Your task to perform on an android device: open app "Google Chat" Image 0: 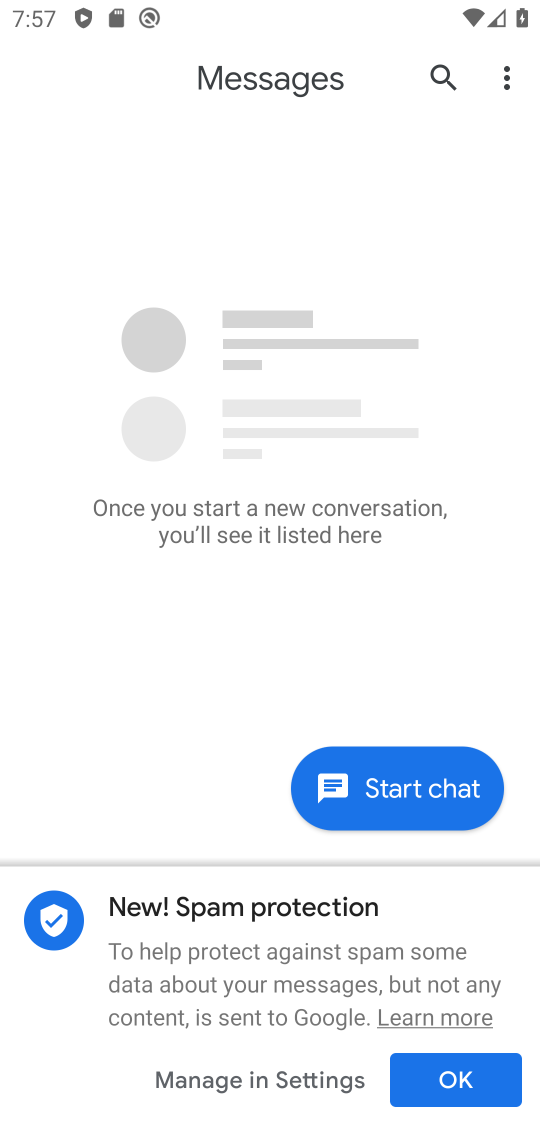
Step 0: press home button
Your task to perform on an android device: open app "Google Chat" Image 1: 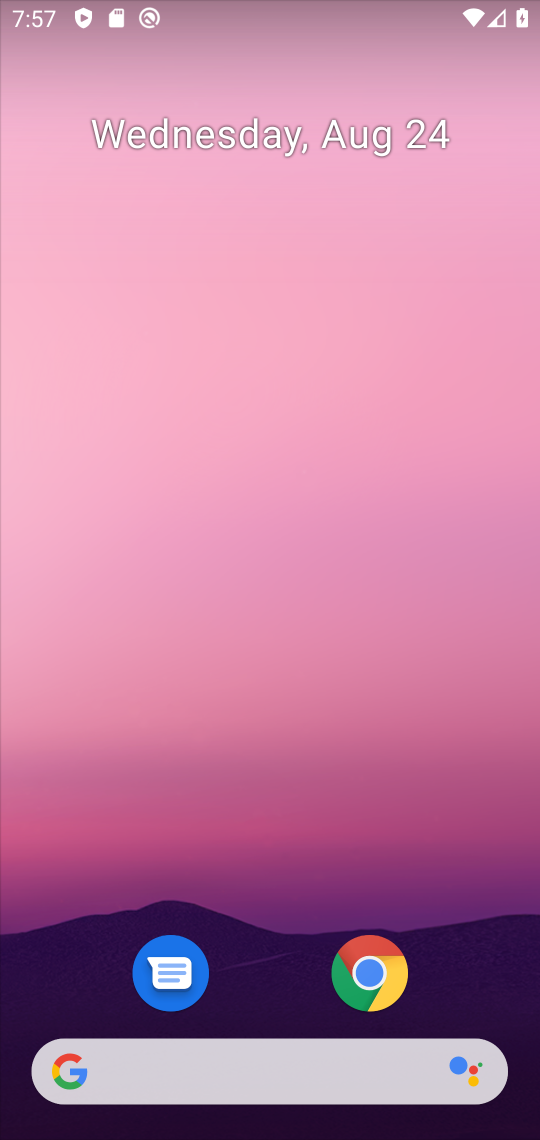
Step 1: drag from (249, 494) to (303, 291)
Your task to perform on an android device: open app "Google Chat" Image 2: 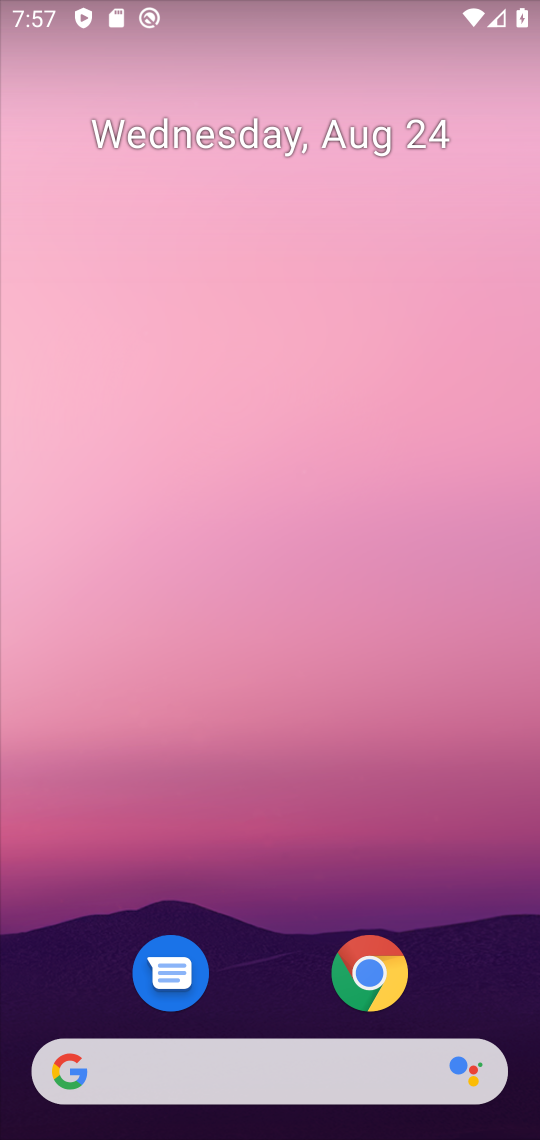
Step 2: drag from (242, 962) to (340, 247)
Your task to perform on an android device: open app "Google Chat" Image 3: 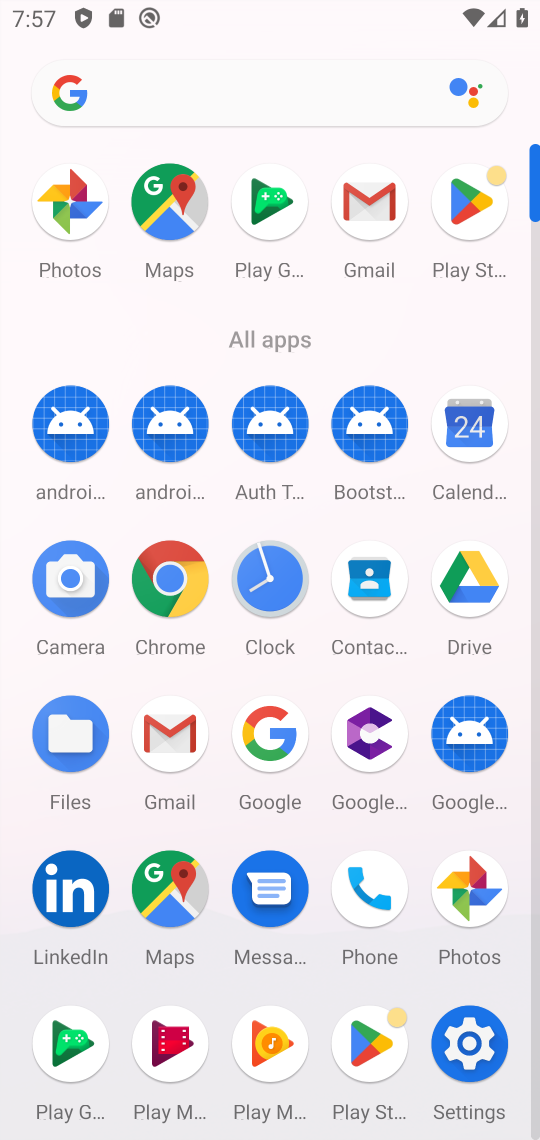
Step 3: click (462, 203)
Your task to perform on an android device: open app "Google Chat" Image 4: 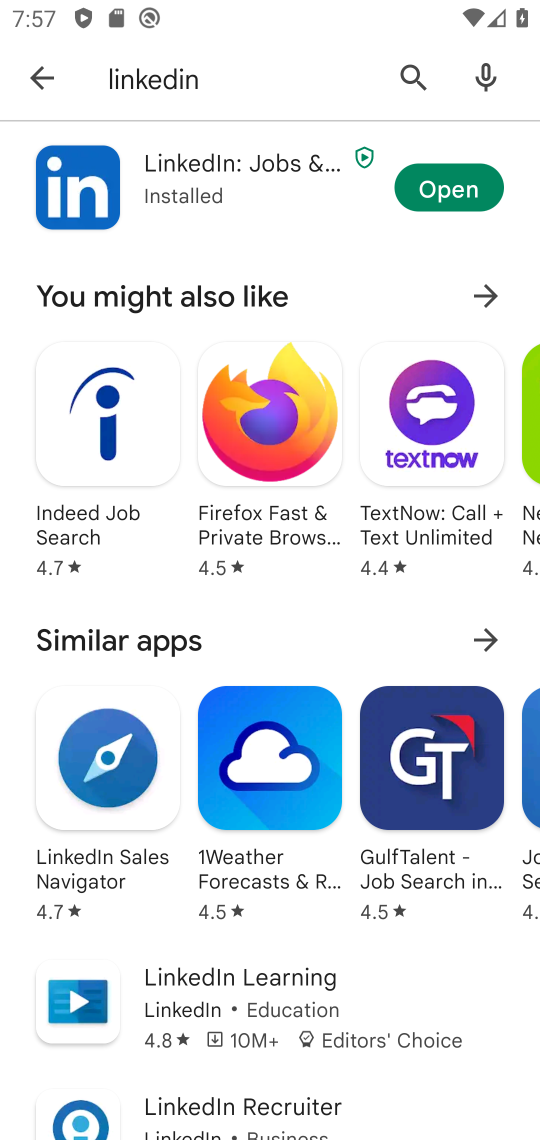
Step 4: click (25, 77)
Your task to perform on an android device: open app "Google Chat" Image 5: 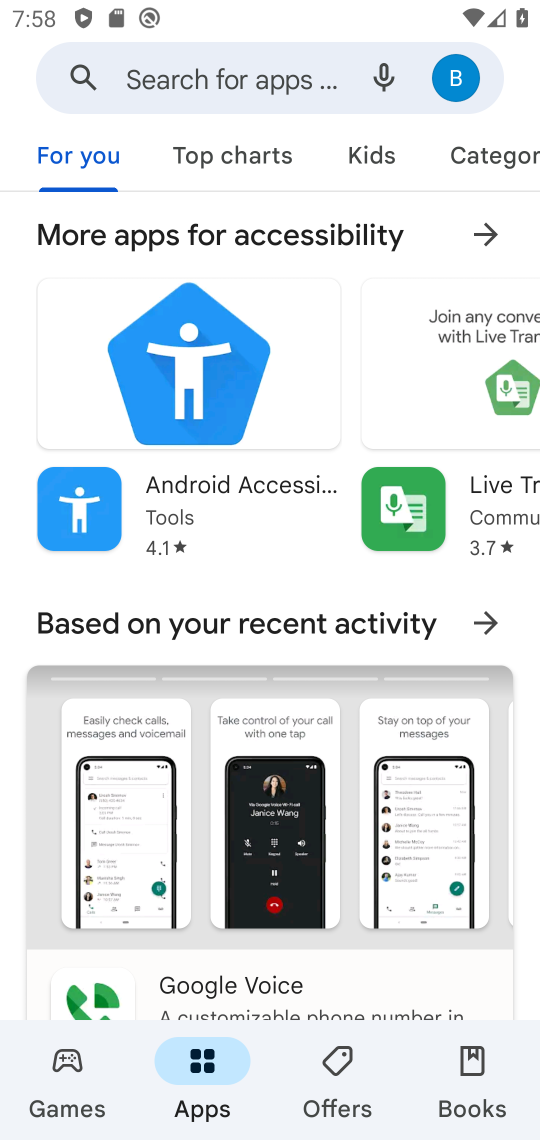
Step 5: click (230, 85)
Your task to perform on an android device: open app "Google Chat" Image 6: 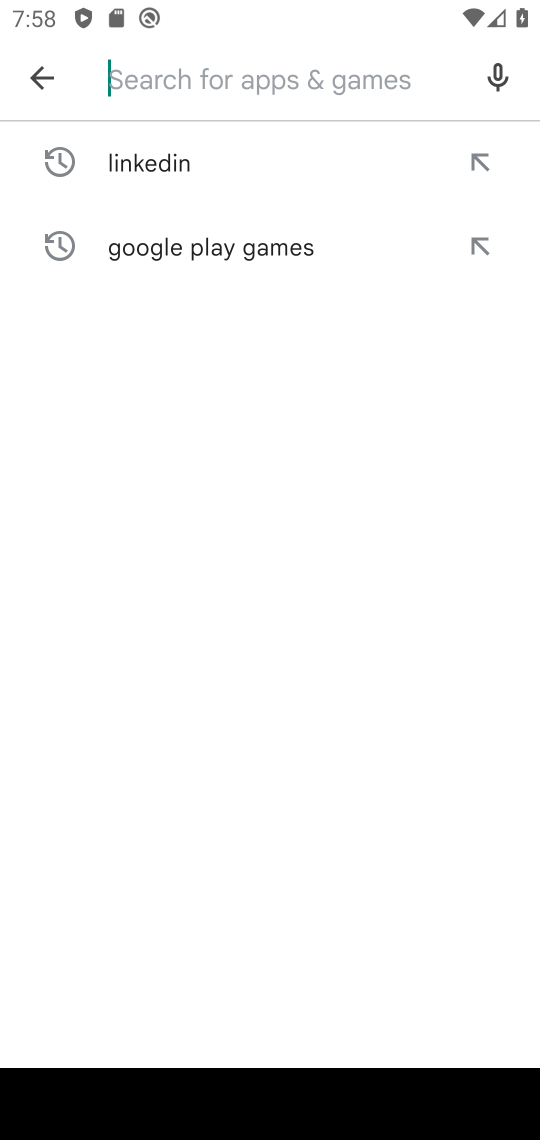
Step 6: type "Google Chat"
Your task to perform on an android device: open app "Google Chat" Image 7: 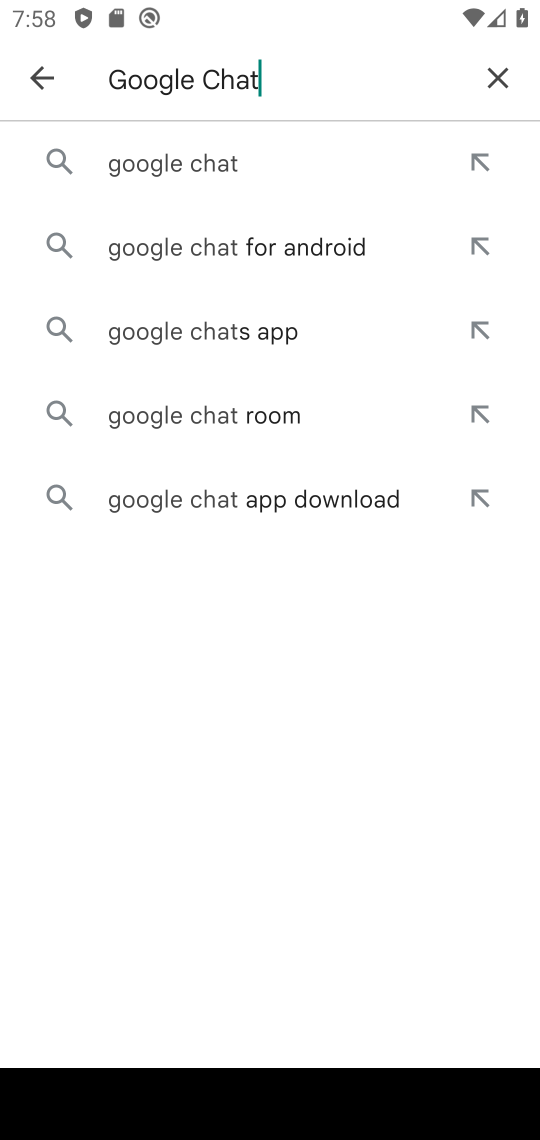
Step 7: click (162, 155)
Your task to perform on an android device: open app "Google Chat" Image 8: 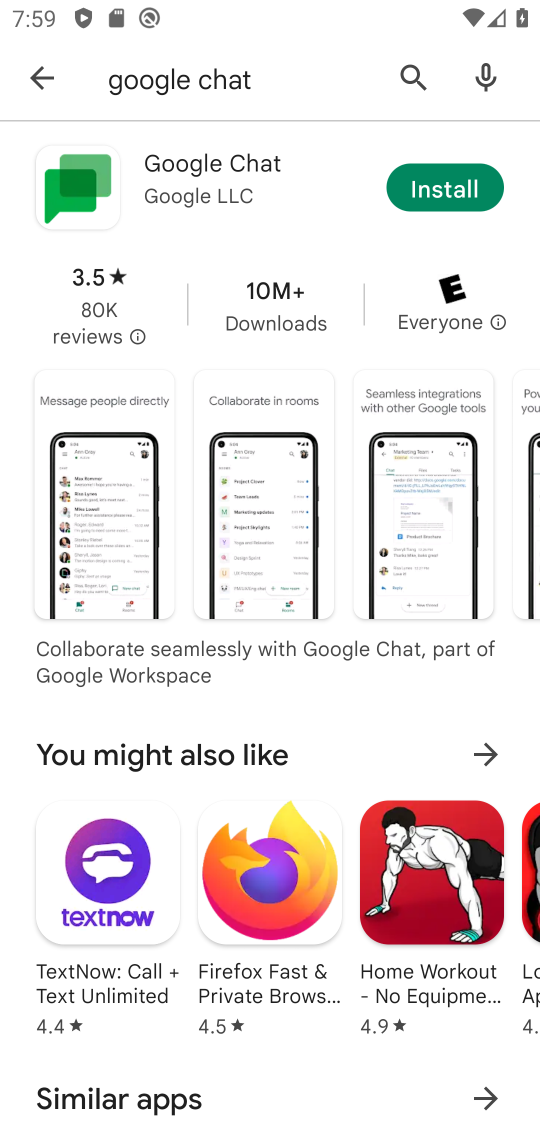
Step 8: click (416, 175)
Your task to perform on an android device: open app "Google Chat" Image 9: 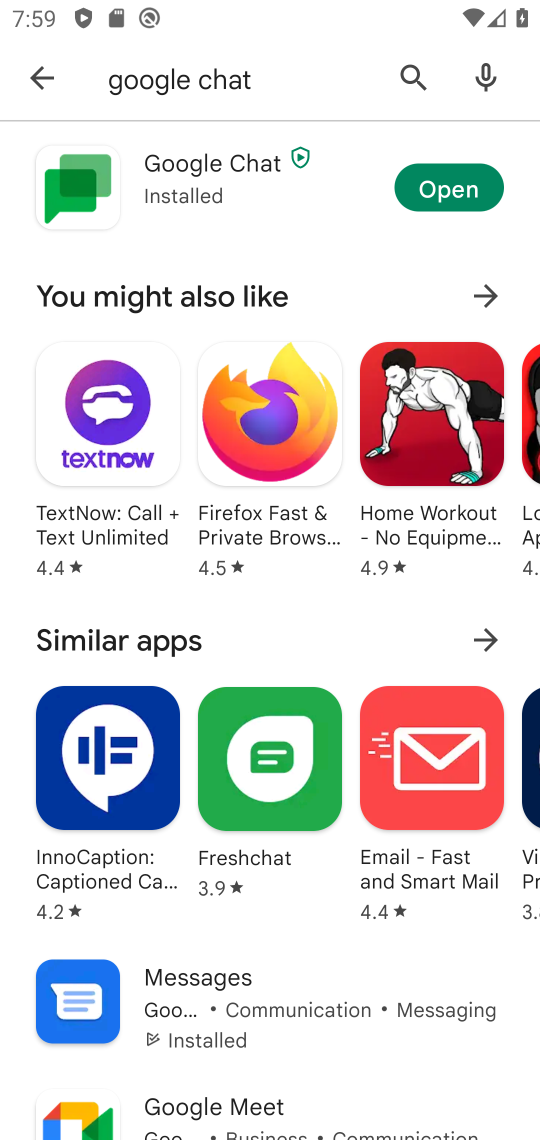
Step 9: click (440, 194)
Your task to perform on an android device: open app "Google Chat" Image 10: 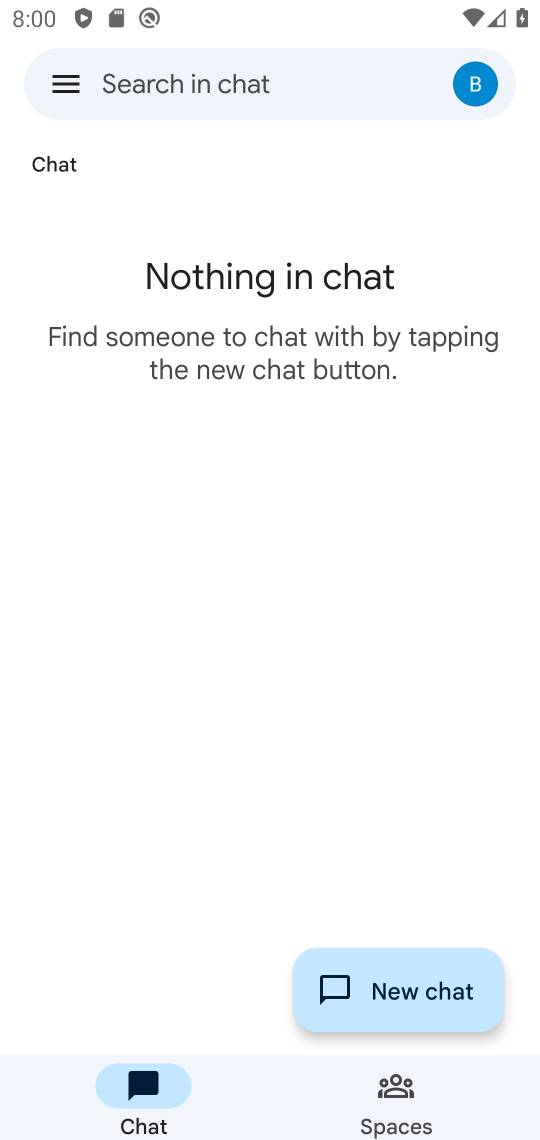
Step 10: task complete